Your task to perform on an android device: Go to calendar. Show me events next week Image 0: 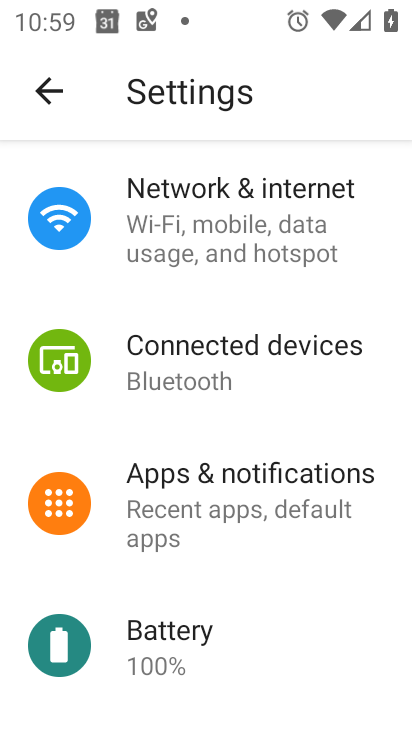
Step 0: press home button
Your task to perform on an android device: Go to calendar. Show me events next week Image 1: 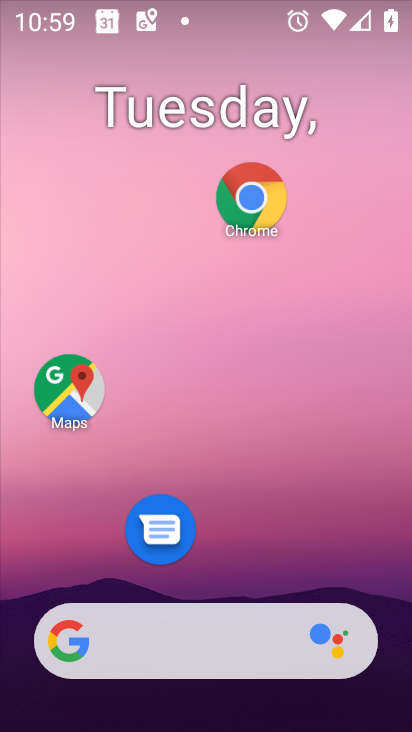
Step 1: drag from (361, 531) to (322, 110)
Your task to perform on an android device: Go to calendar. Show me events next week Image 2: 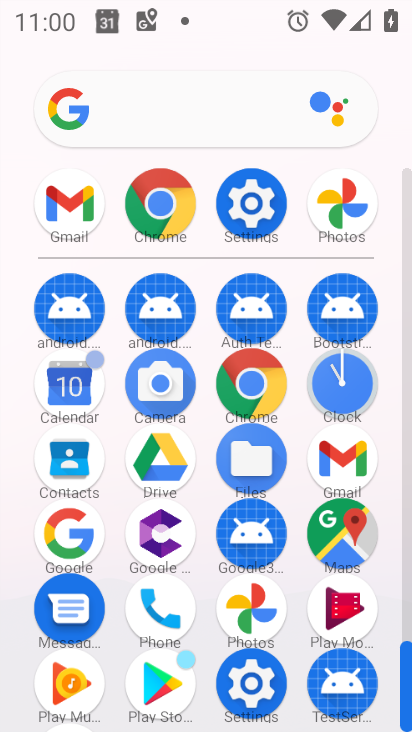
Step 2: click (50, 370)
Your task to perform on an android device: Go to calendar. Show me events next week Image 3: 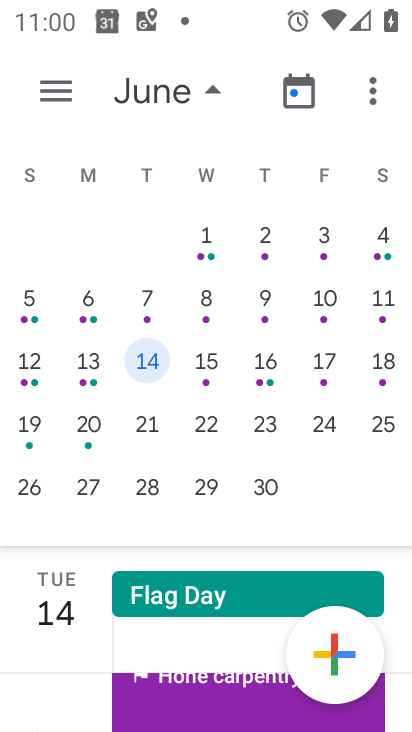
Step 3: task complete